Your task to perform on an android device: Play the last video I watched on Youtube Image 0: 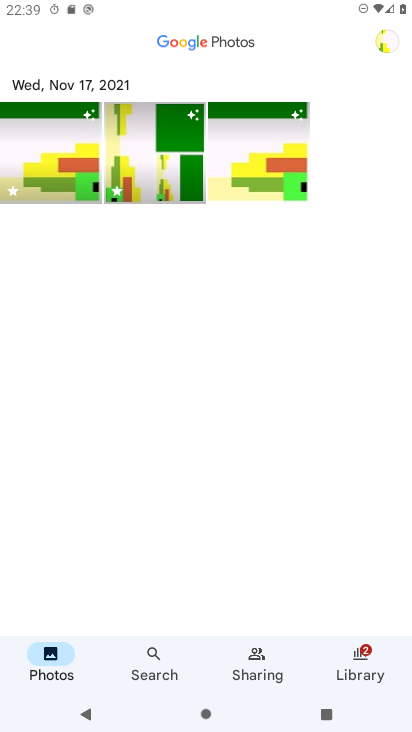
Step 0: press home button
Your task to perform on an android device: Play the last video I watched on Youtube Image 1: 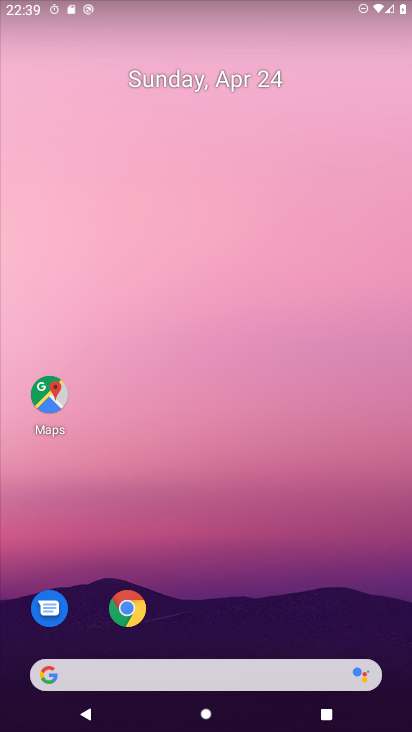
Step 1: drag from (267, 612) to (279, 63)
Your task to perform on an android device: Play the last video I watched on Youtube Image 2: 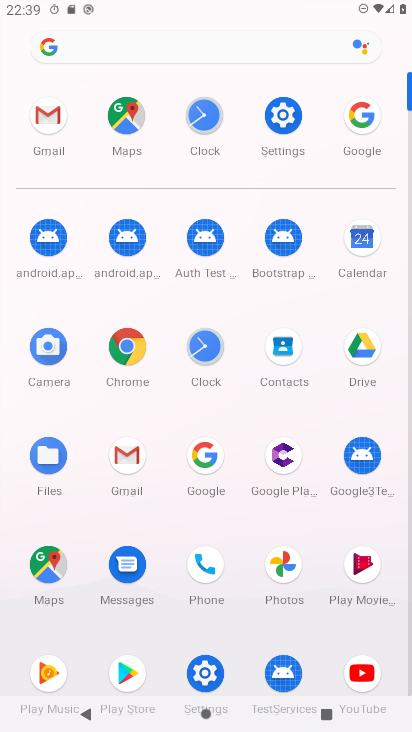
Step 2: click (366, 664)
Your task to perform on an android device: Play the last video I watched on Youtube Image 3: 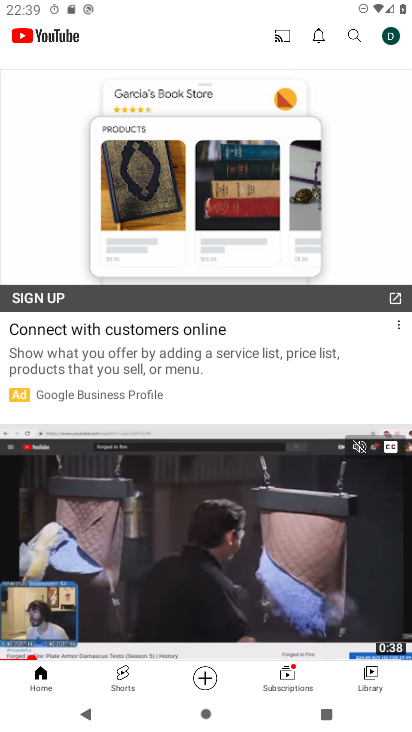
Step 3: click (392, 33)
Your task to perform on an android device: Play the last video I watched on Youtube Image 4: 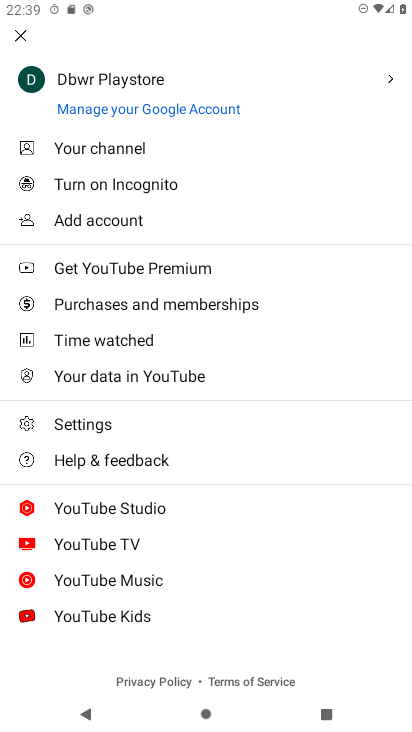
Step 4: click (138, 335)
Your task to perform on an android device: Play the last video I watched on Youtube Image 5: 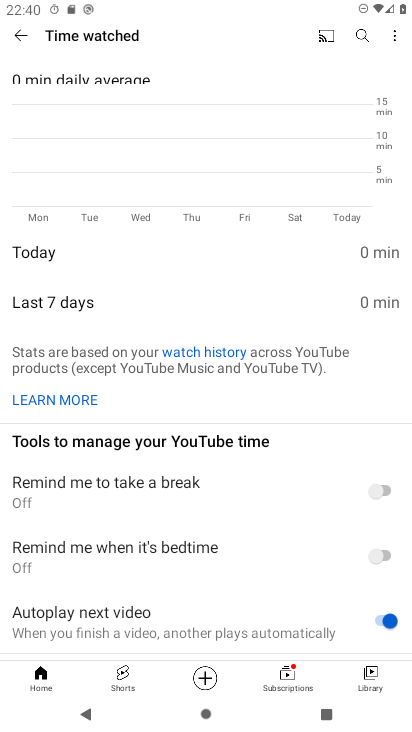
Step 5: click (138, 335)
Your task to perform on an android device: Play the last video I watched on Youtube Image 6: 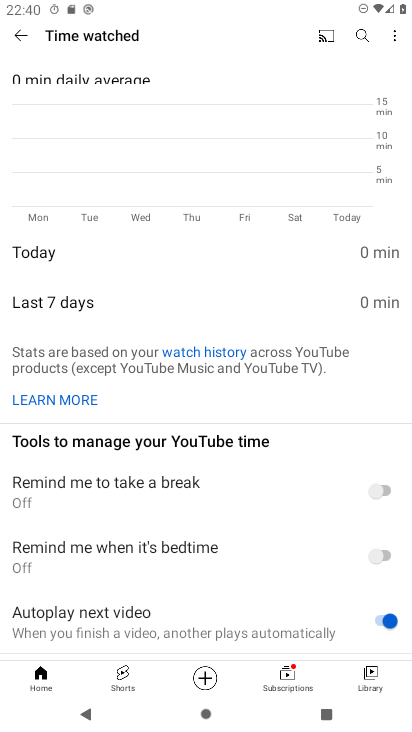
Step 6: click (185, 339)
Your task to perform on an android device: Play the last video I watched on Youtube Image 7: 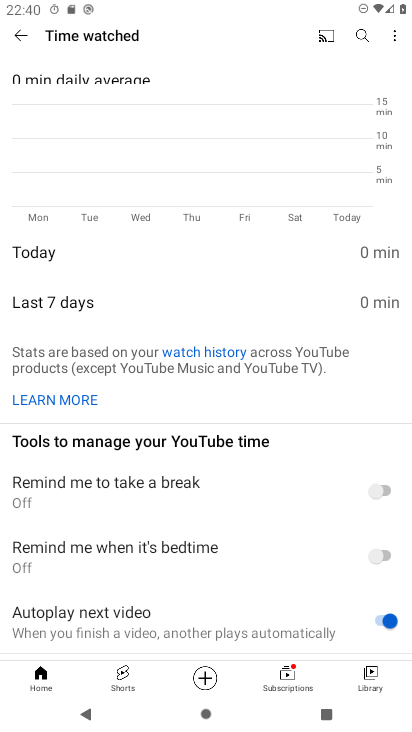
Step 7: click (197, 348)
Your task to perform on an android device: Play the last video I watched on Youtube Image 8: 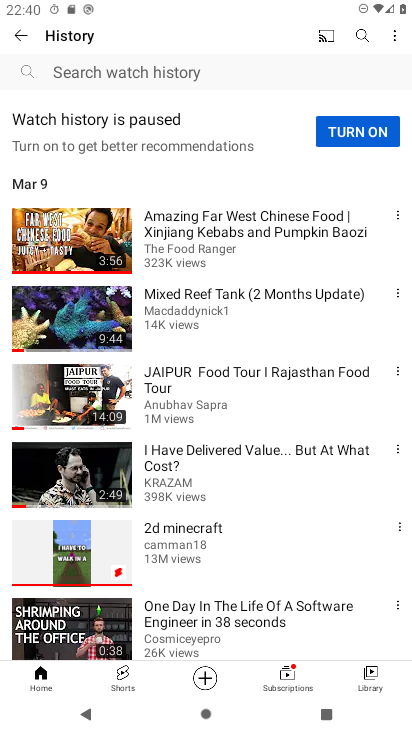
Step 8: click (99, 246)
Your task to perform on an android device: Play the last video I watched on Youtube Image 9: 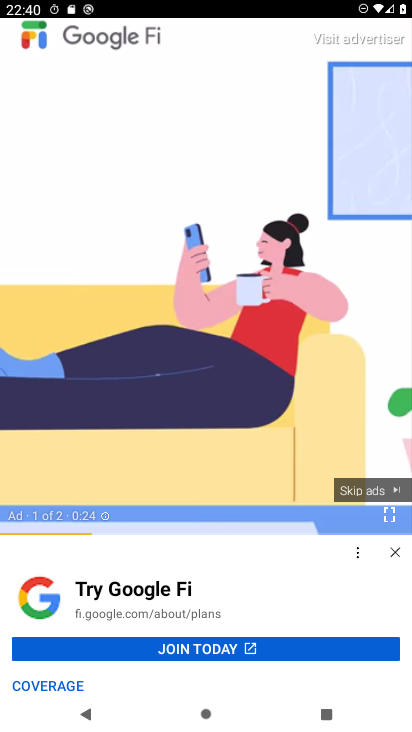
Step 9: task complete